Your task to perform on an android device: toggle airplane mode Image 0: 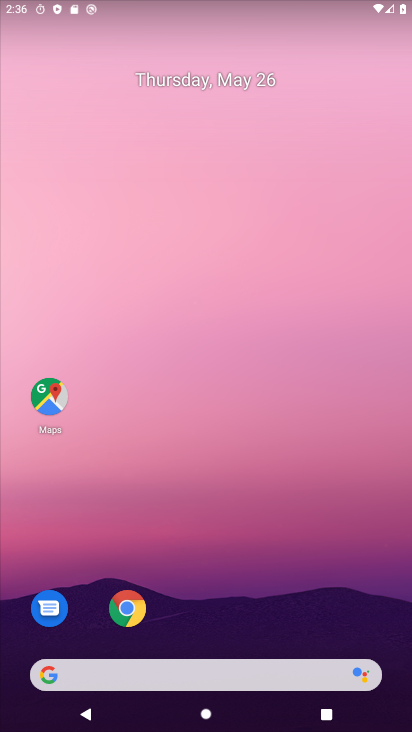
Step 0: drag from (298, 694) to (151, 20)
Your task to perform on an android device: toggle airplane mode Image 1: 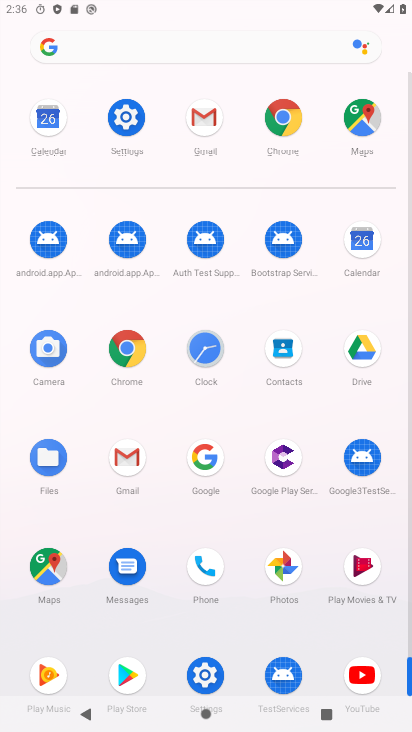
Step 1: click (126, 109)
Your task to perform on an android device: toggle airplane mode Image 2: 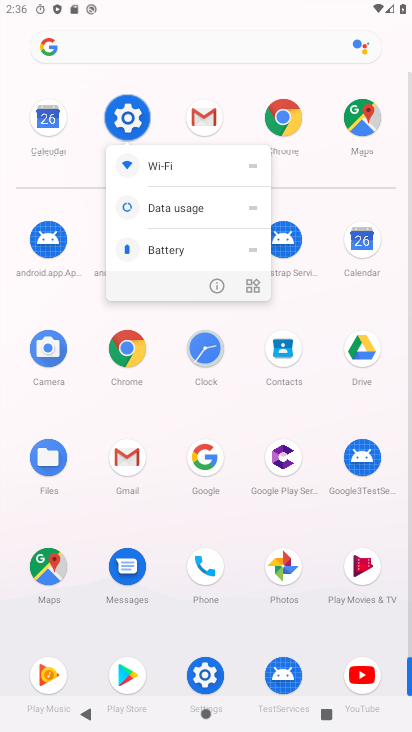
Step 2: click (119, 109)
Your task to perform on an android device: toggle airplane mode Image 3: 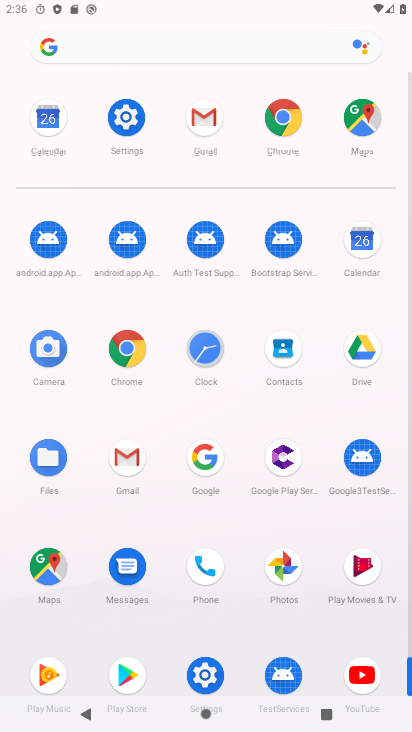
Step 3: click (119, 109)
Your task to perform on an android device: toggle airplane mode Image 4: 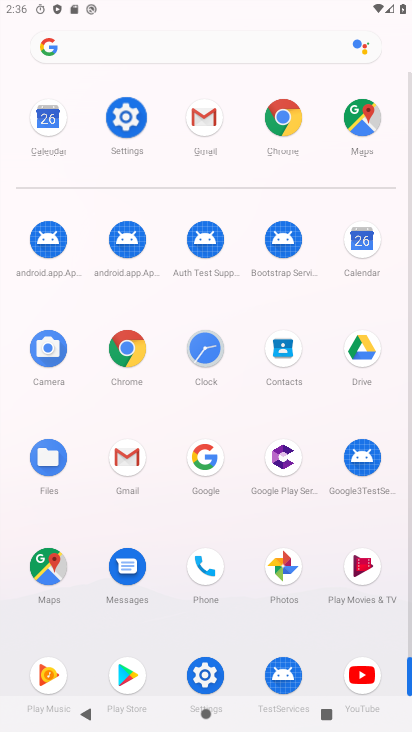
Step 4: click (119, 109)
Your task to perform on an android device: toggle airplane mode Image 5: 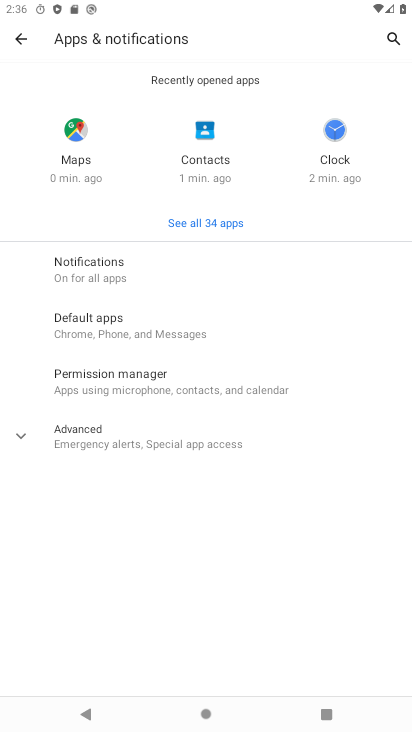
Step 5: click (22, 41)
Your task to perform on an android device: toggle airplane mode Image 6: 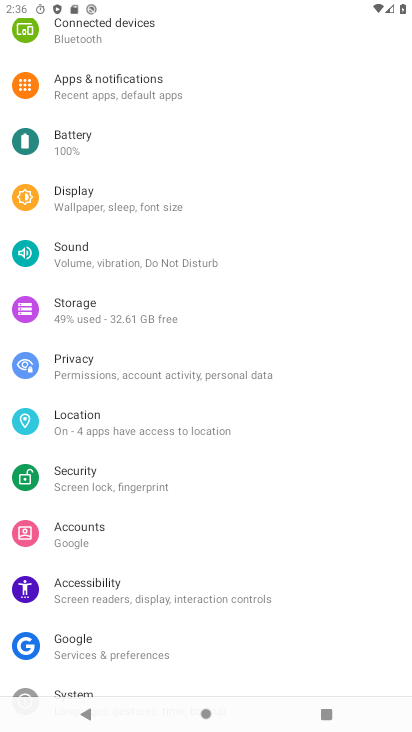
Step 6: drag from (134, 129) to (181, 540)
Your task to perform on an android device: toggle airplane mode Image 7: 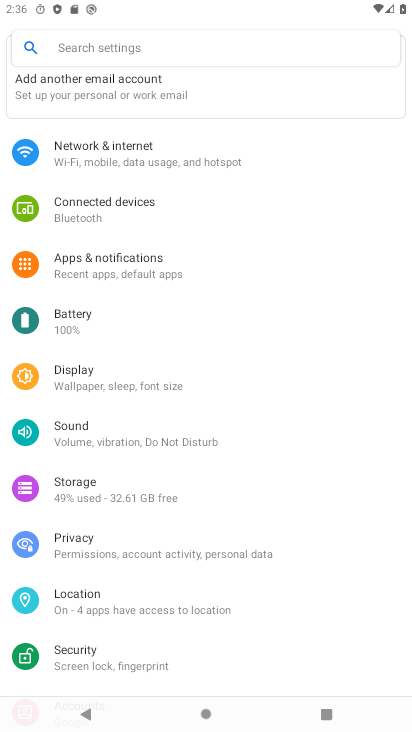
Step 7: click (127, 154)
Your task to perform on an android device: toggle airplane mode Image 8: 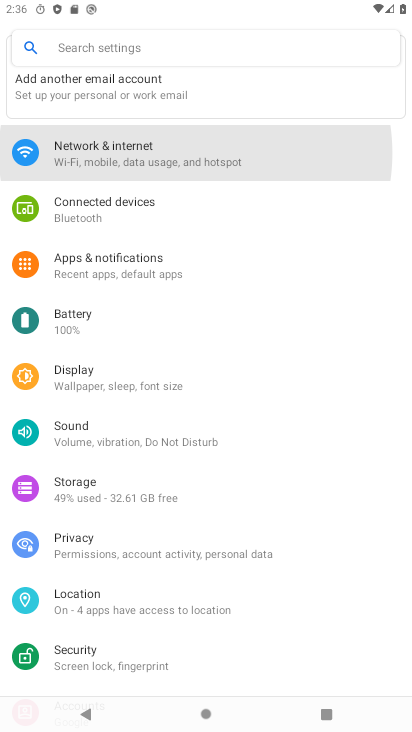
Step 8: click (127, 154)
Your task to perform on an android device: toggle airplane mode Image 9: 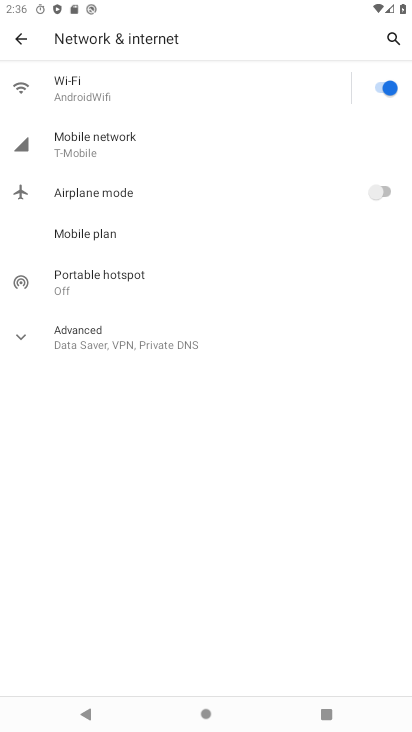
Step 9: click (377, 187)
Your task to perform on an android device: toggle airplane mode Image 10: 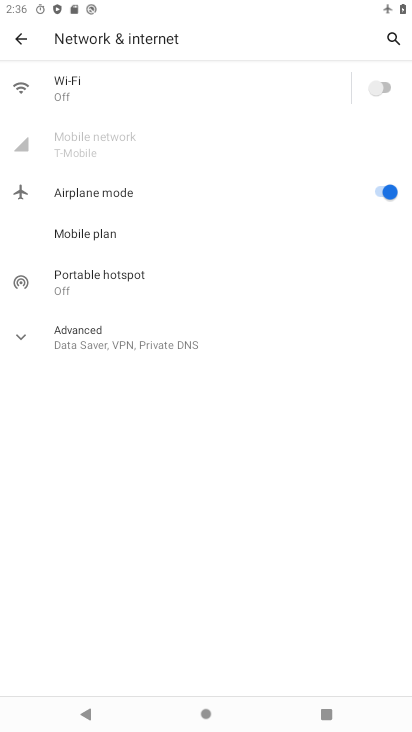
Step 10: task complete